Your task to perform on an android device: Go to Google Image 0: 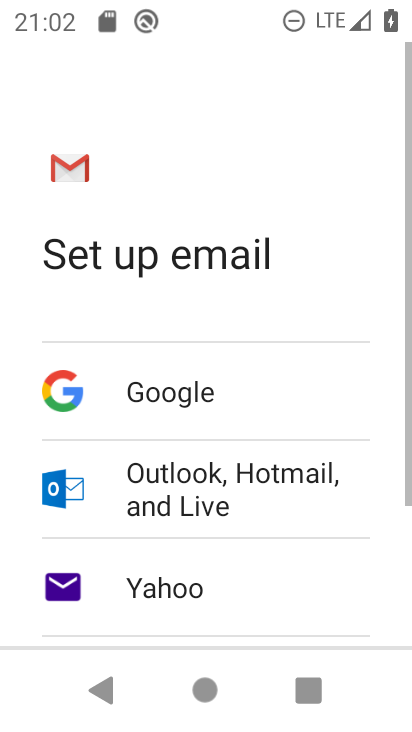
Step 0: press home button
Your task to perform on an android device: Go to Google Image 1: 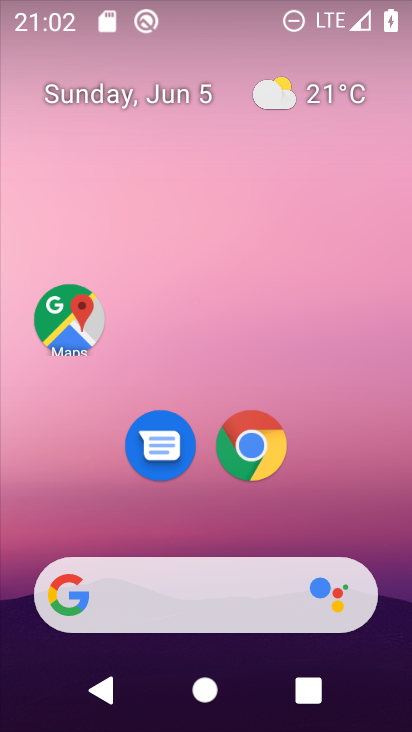
Step 1: drag from (322, 511) to (301, 135)
Your task to perform on an android device: Go to Google Image 2: 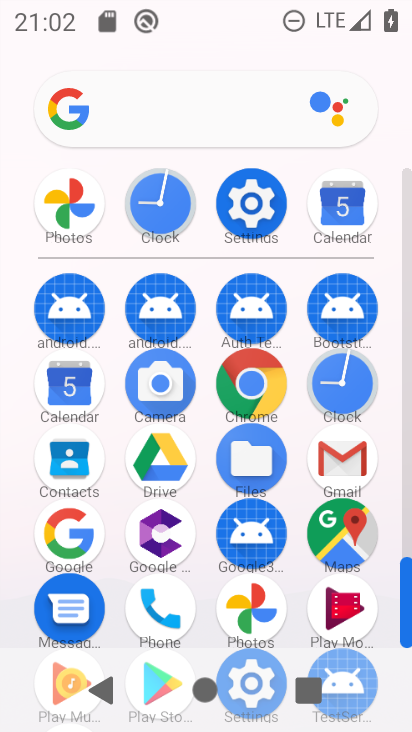
Step 2: click (56, 521)
Your task to perform on an android device: Go to Google Image 3: 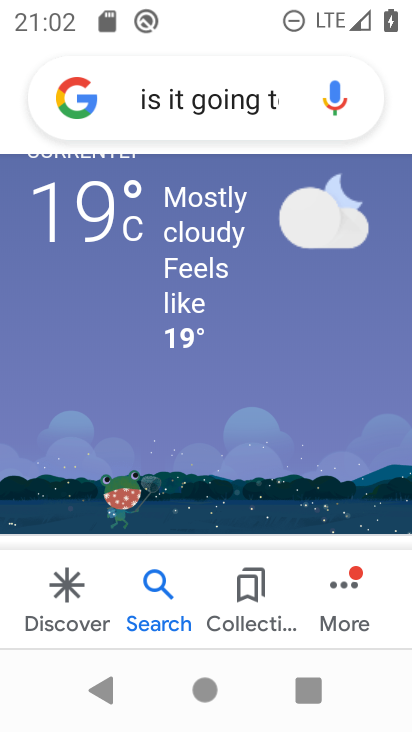
Step 3: click (281, 115)
Your task to perform on an android device: Go to Google Image 4: 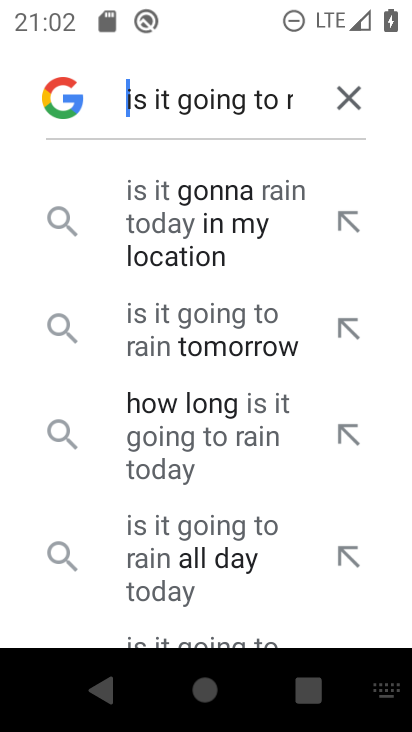
Step 4: click (343, 95)
Your task to perform on an android device: Go to Google Image 5: 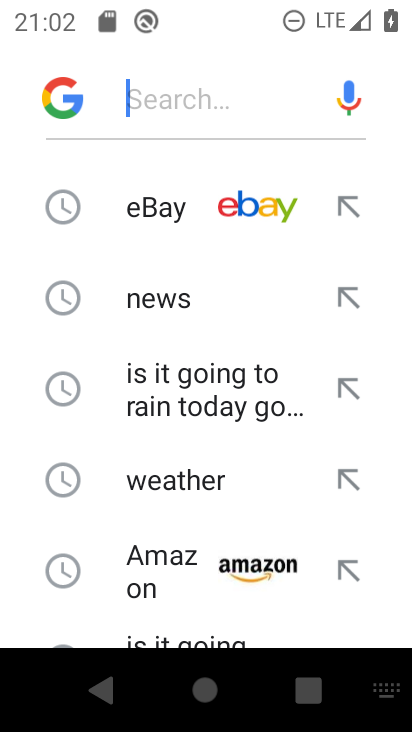
Step 5: click (62, 95)
Your task to perform on an android device: Go to Google Image 6: 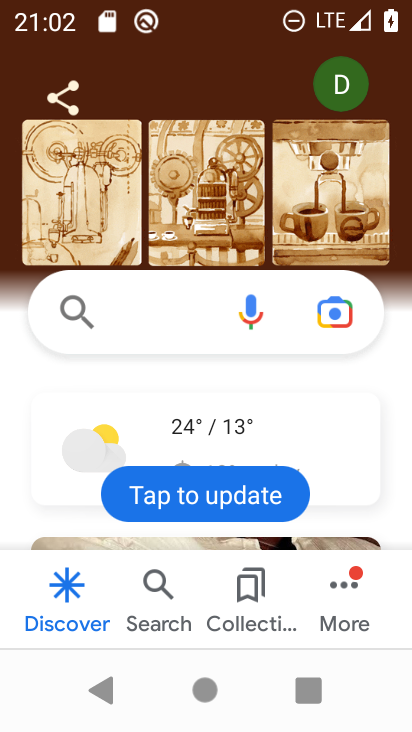
Step 6: task complete